Your task to perform on an android device: Turn off the flashlight Image 0: 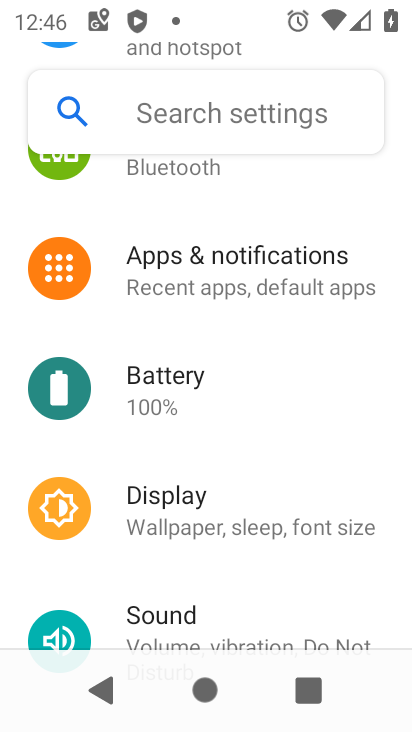
Step 0: drag from (235, 578) to (295, 149)
Your task to perform on an android device: Turn off the flashlight Image 1: 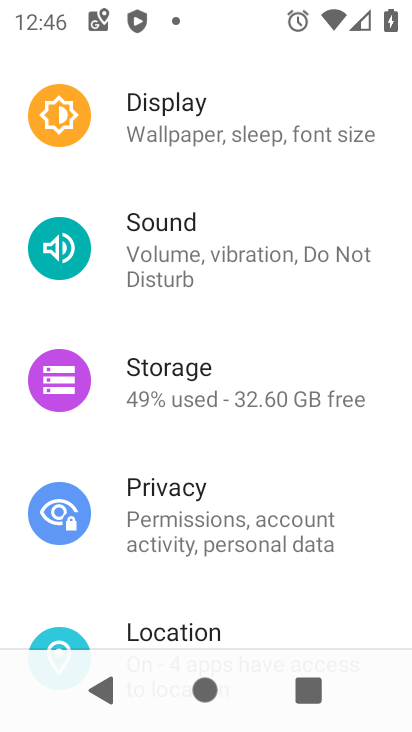
Step 1: task complete